Your task to perform on an android device: open the mobile data screen to see how much data has been used Image 0: 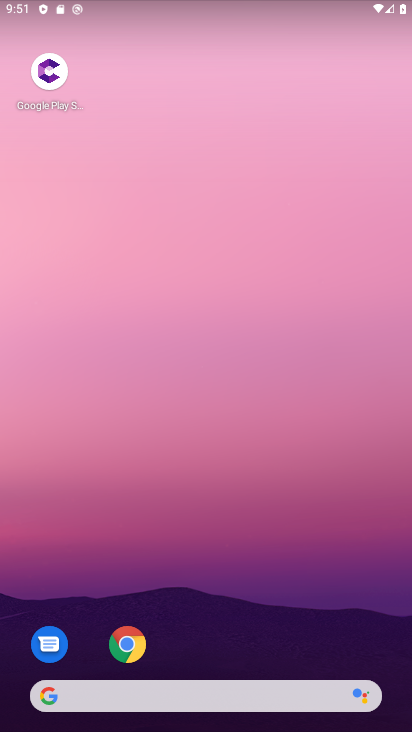
Step 0: drag from (116, 674) to (170, 266)
Your task to perform on an android device: open the mobile data screen to see how much data has been used Image 1: 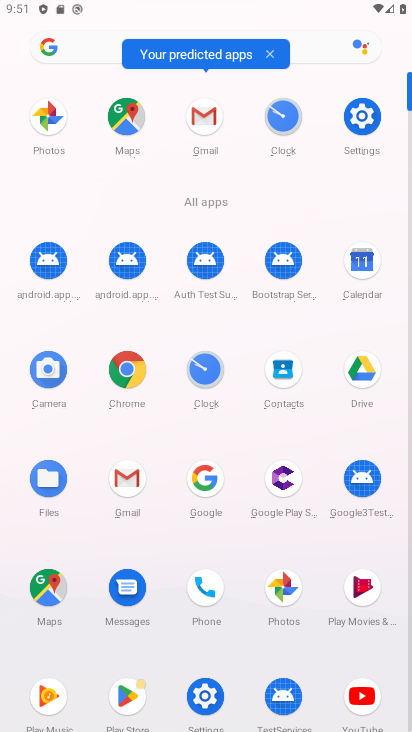
Step 1: click (360, 108)
Your task to perform on an android device: open the mobile data screen to see how much data has been used Image 2: 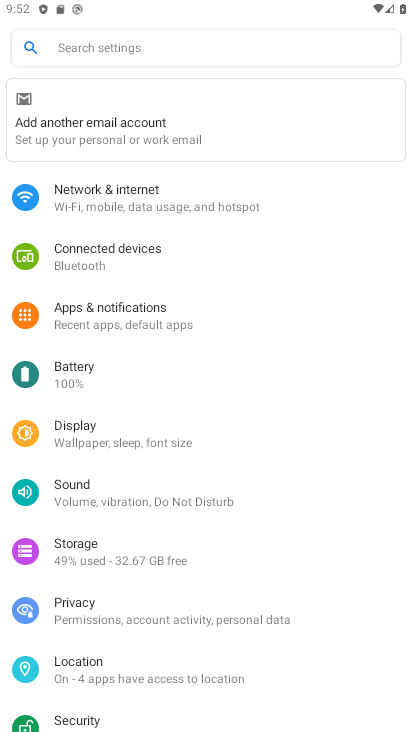
Step 2: click (126, 204)
Your task to perform on an android device: open the mobile data screen to see how much data has been used Image 3: 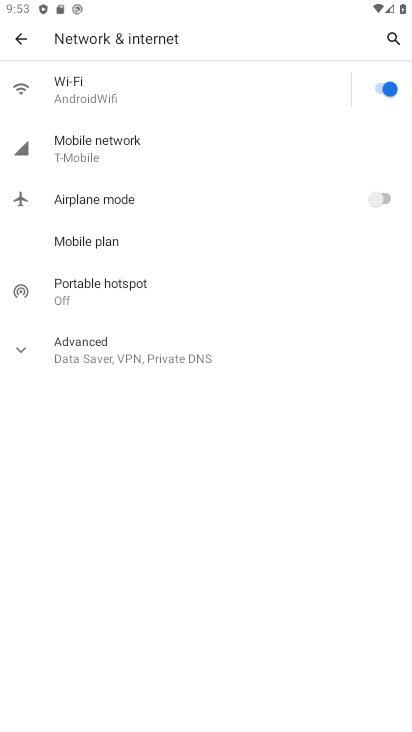
Step 3: click (92, 145)
Your task to perform on an android device: open the mobile data screen to see how much data has been used Image 4: 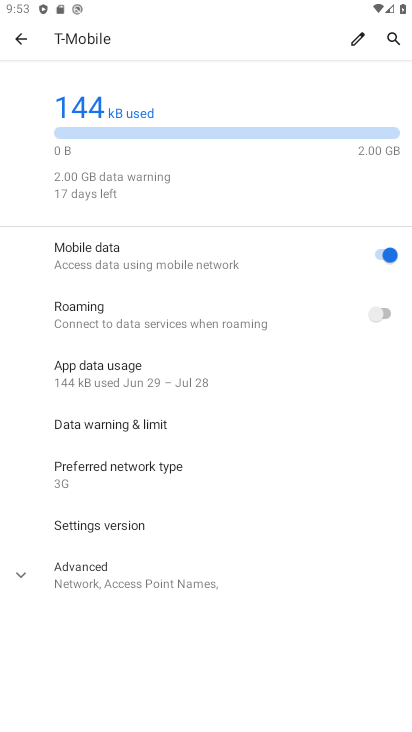
Step 4: task complete